Your task to perform on an android device: turn smart compose on in the gmail app Image 0: 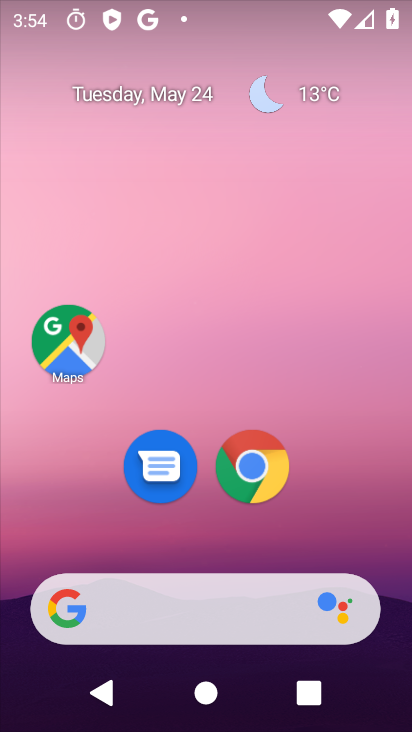
Step 0: drag from (327, 500) to (295, 199)
Your task to perform on an android device: turn smart compose on in the gmail app Image 1: 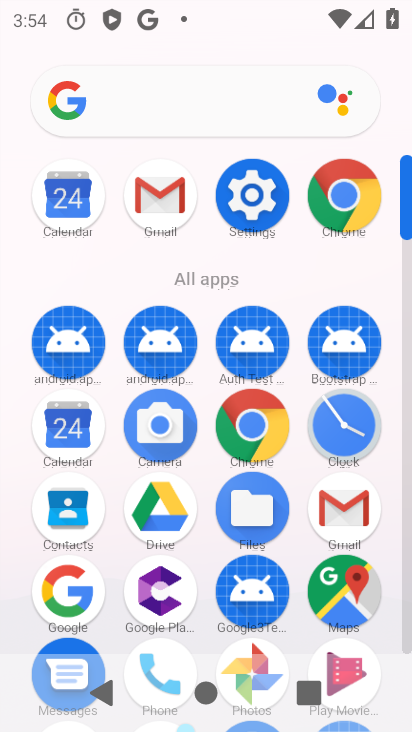
Step 1: click (156, 196)
Your task to perform on an android device: turn smart compose on in the gmail app Image 2: 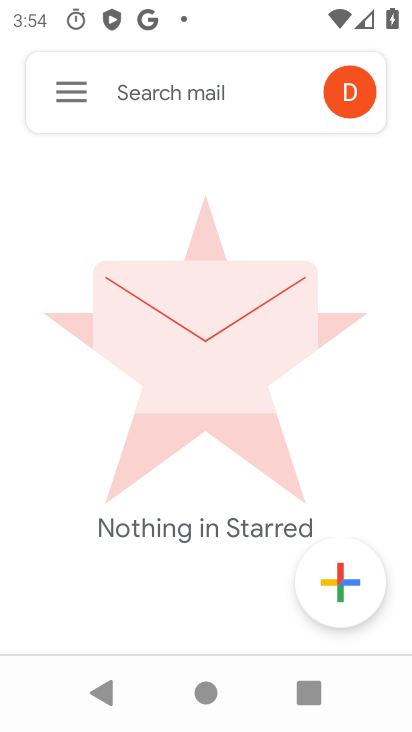
Step 2: click (77, 82)
Your task to perform on an android device: turn smart compose on in the gmail app Image 3: 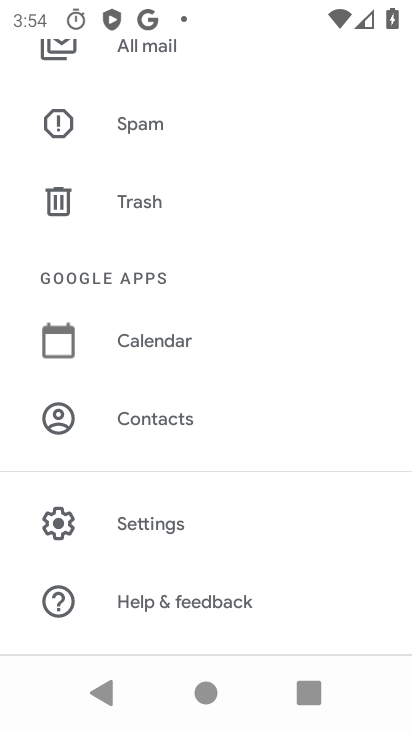
Step 3: drag from (168, 515) to (206, 114)
Your task to perform on an android device: turn smart compose on in the gmail app Image 4: 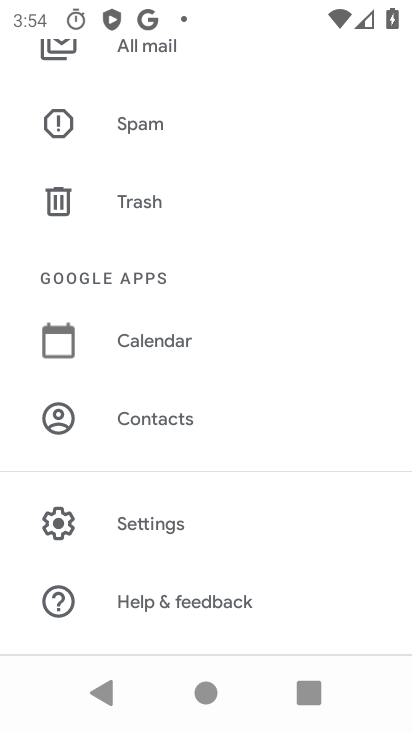
Step 4: click (144, 528)
Your task to perform on an android device: turn smart compose on in the gmail app Image 5: 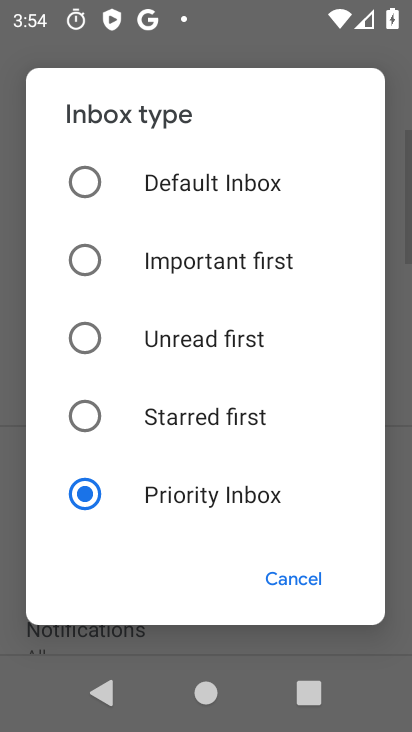
Step 5: click (325, 584)
Your task to perform on an android device: turn smart compose on in the gmail app Image 6: 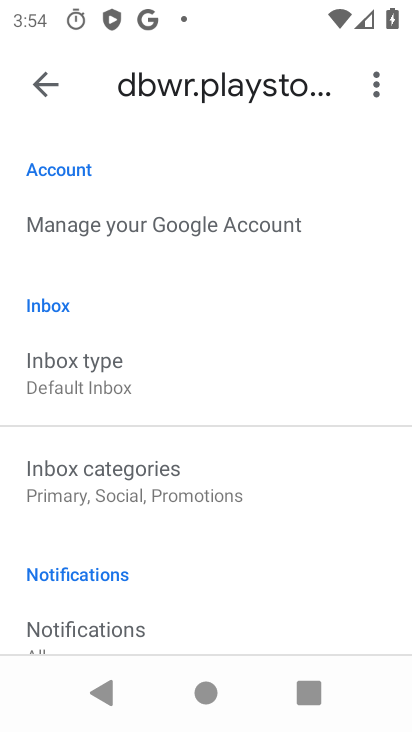
Step 6: task complete